Your task to perform on an android device: turn off priority inbox in the gmail app Image 0: 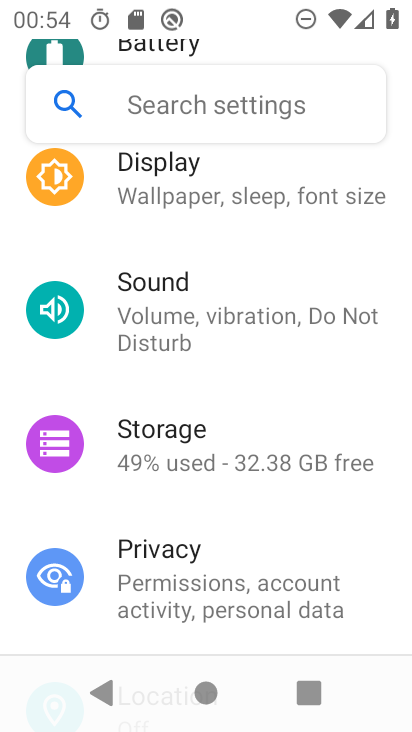
Step 0: press home button
Your task to perform on an android device: turn off priority inbox in the gmail app Image 1: 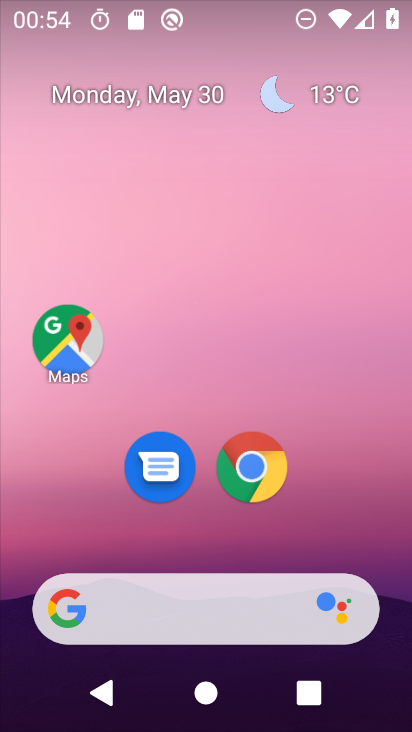
Step 1: drag from (208, 541) to (211, 140)
Your task to perform on an android device: turn off priority inbox in the gmail app Image 2: 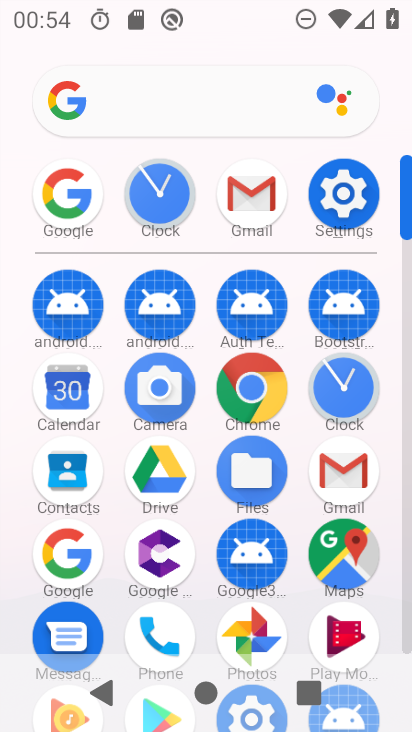
Step 2: click (254, 178)
Your task to perform on an android device: turn off priority inbox in the gmail app Image 3: 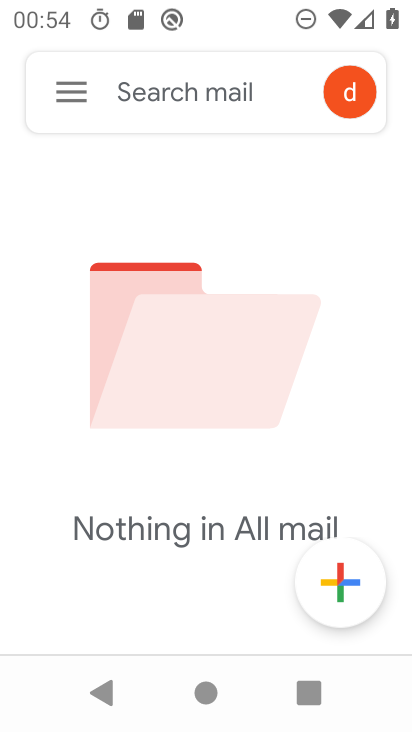
Step 3: click (82, 87)
Your task to perform on an android device: turn off priority inbox in the gmail app Image 4: 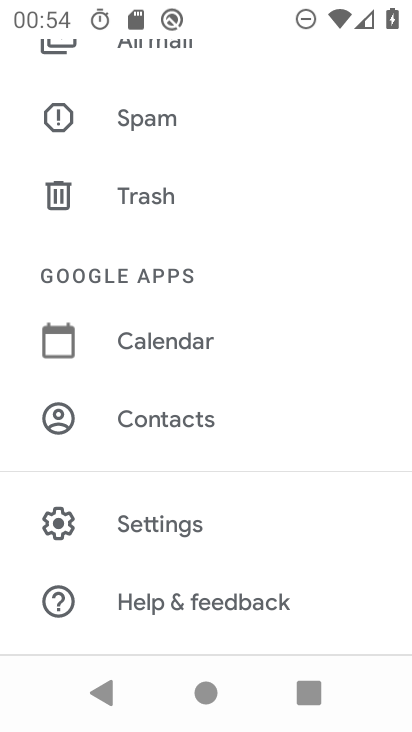
Step 4: drag from (184, 542) to (176, 330)
Your task to perform on an android device: turn off priority inbox in the gmail app Image 5: 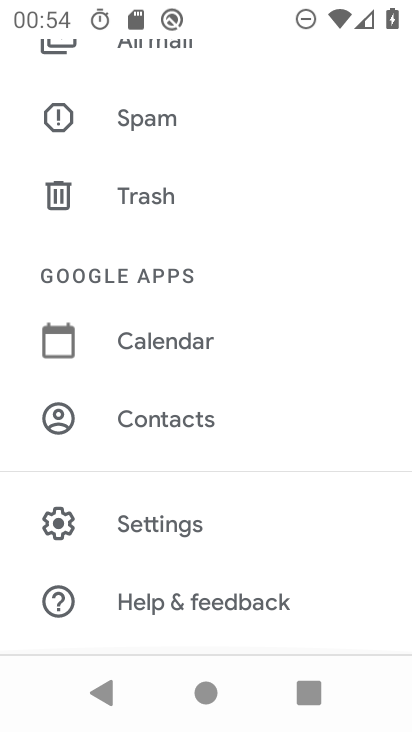
Step 5: click (172, 489)
Your task to perform on an android device: turn off priority inbox in the gmail app Image 6: 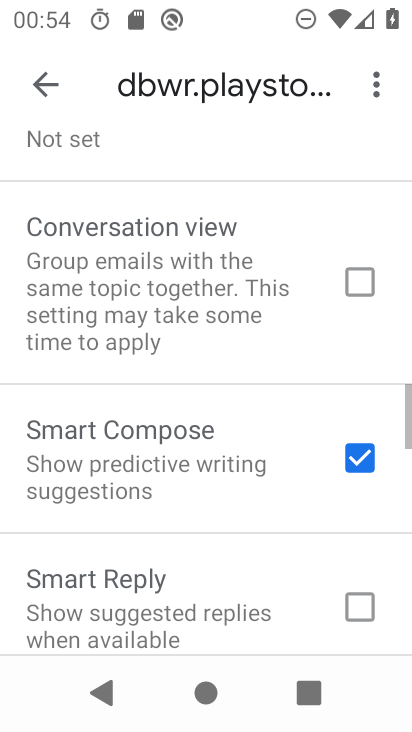
Step 6: drag from (202, 535) to (233, 577)
Your task to perform on an android device: turn off priority inbox in the gmail app Image 7: 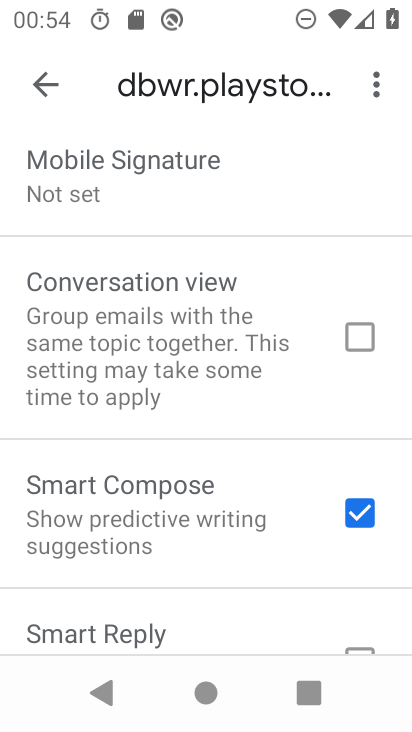
Step 7: drag from (216, 256) to (224, 487)
Your task to perform on an android device: turn off priority inbox in the gmail app Image 8: 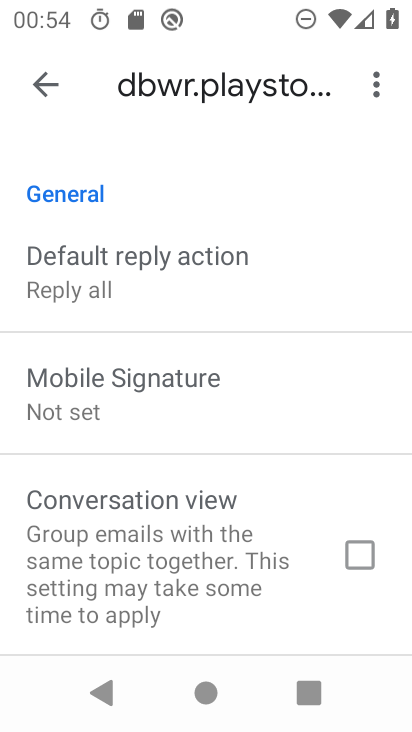
Step 8: drag from (238, 323) to (244, 576)
Your task to perform on an android device: turn off priority inbox in the gmail app Image 9: 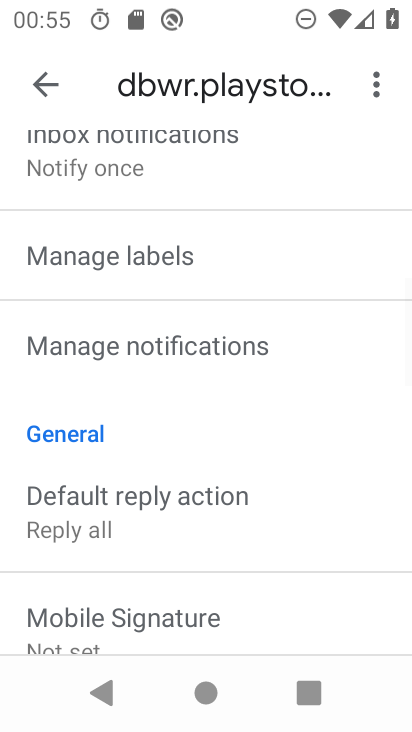
Step 9: drag from (221, 267) to (221, 536)
Your task to perform on an android device: turn off priority inbox in the gmail app Image 10: 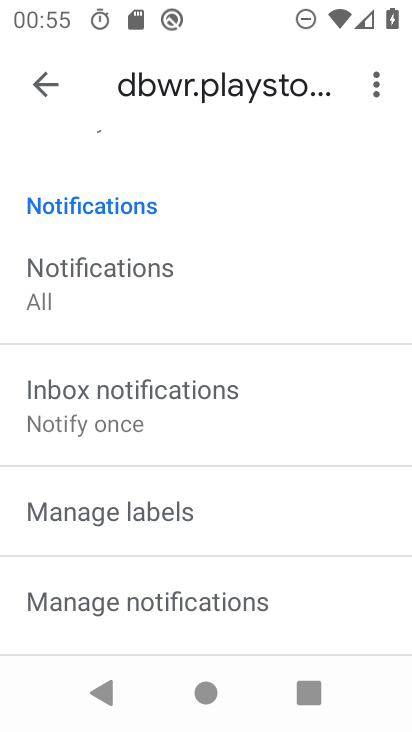
Step 10: drag from (191, 269) to (217, 441)
Your task to perform on an android device: turn off priority inbox in the gmail app Image 11: 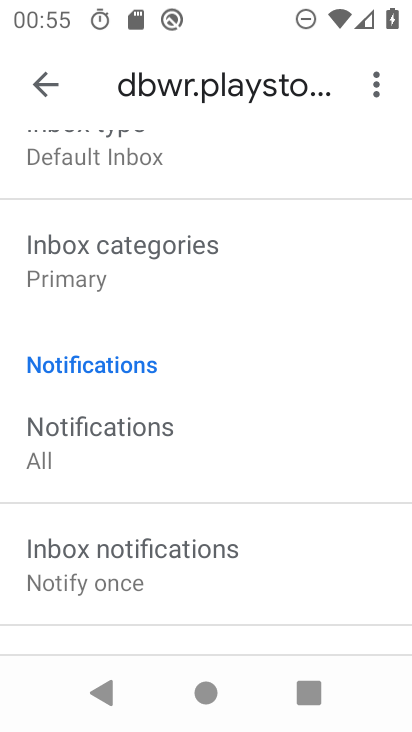
Step 11: drag from (182, 192) to (196, 407)
Your task to perform on an android device: turn off priority inbox in the gmail app Image 12: 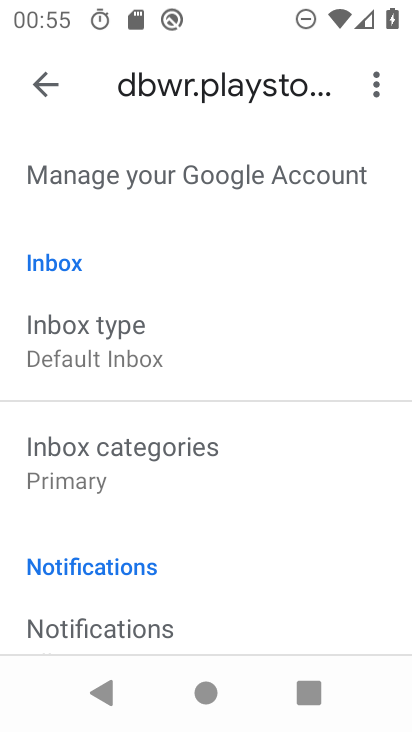
Step 12: drag from (188, 281) to (203, 376)
Your task to perform on an android device: turn off priority inbox in the gmail app Image 13: 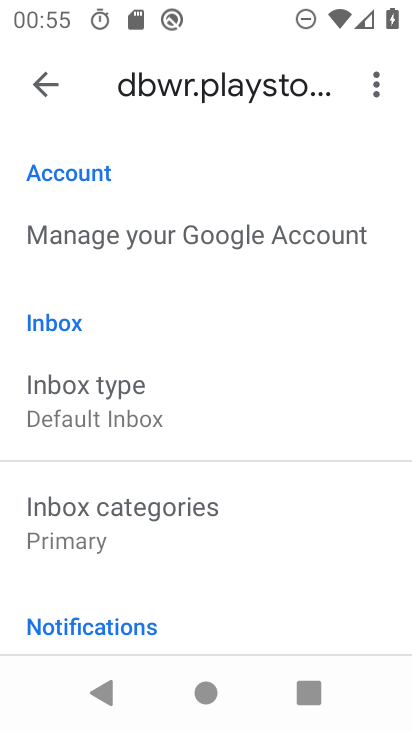
Step 13: click (183, 384)
Your task to perform on an android device: turn off priority inbox in the gmail app Image 14: 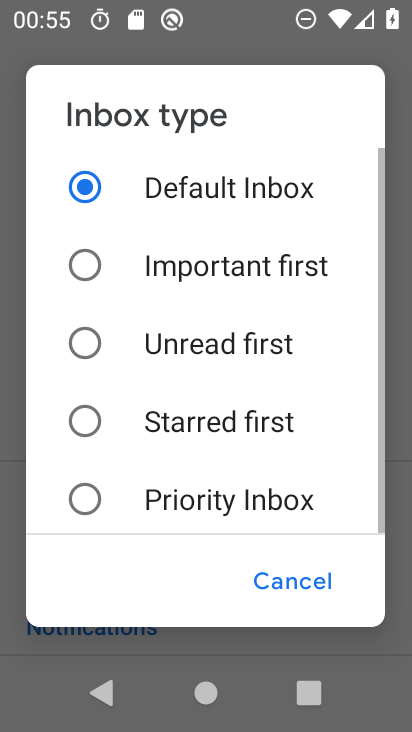
Step 14: task complete